Your task to perform on an android device: allow notifications from all sites in the chrome app Image 0: 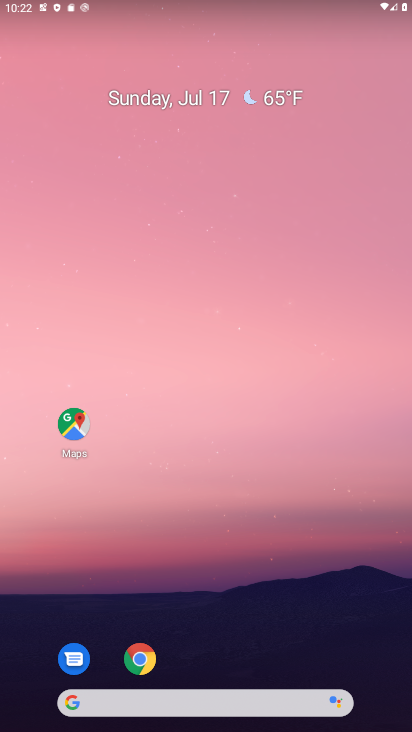
Step 0: click (147, 654)
Your task to perform on an android device: allow notifications from all sites in the chrome app Image 1: 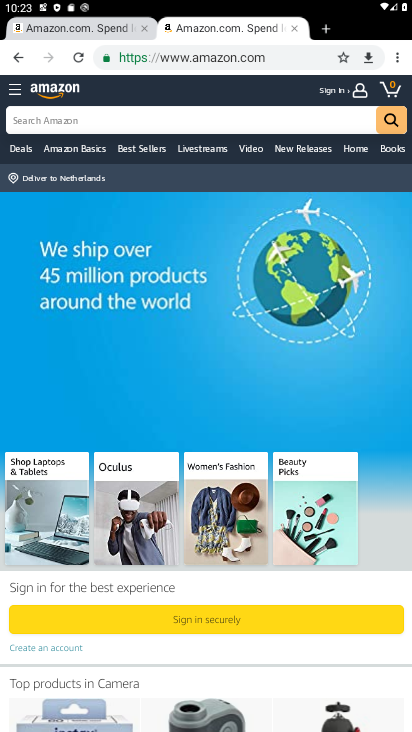
Step 1: drag from (391, 61) to (302, 413)
Your task to perform on an android device: allow notifications from all sites in the chrome app Image 2: 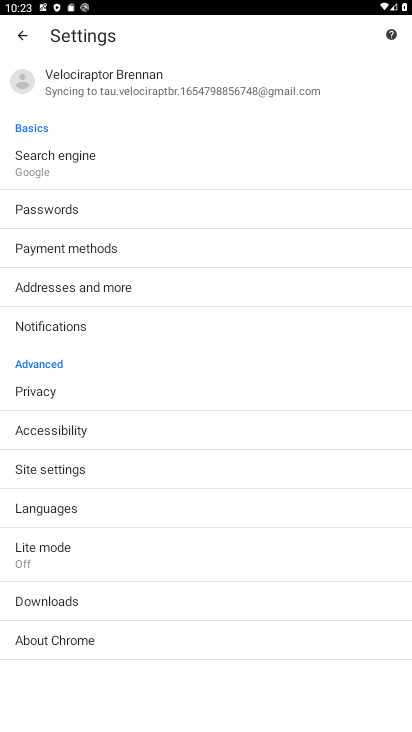
Step 2: click (59, 477)
Your task to perform on an android device: allow notifications from all sites in the chrome app Image 3: 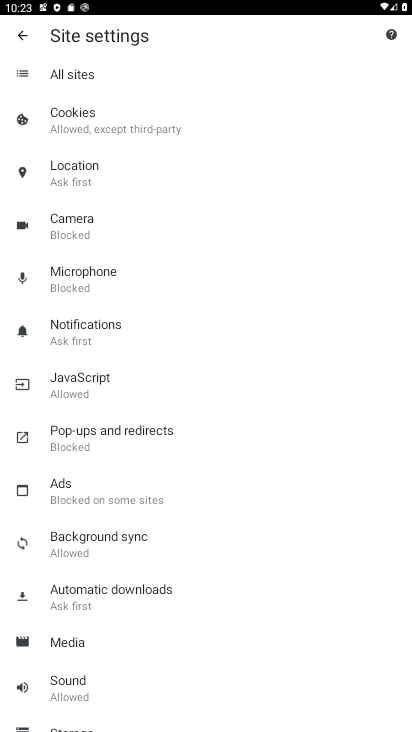
Step 3: click (112, 325)
Your task to perform on an android device: allow notifications from all sites in the chrome app Image 4: 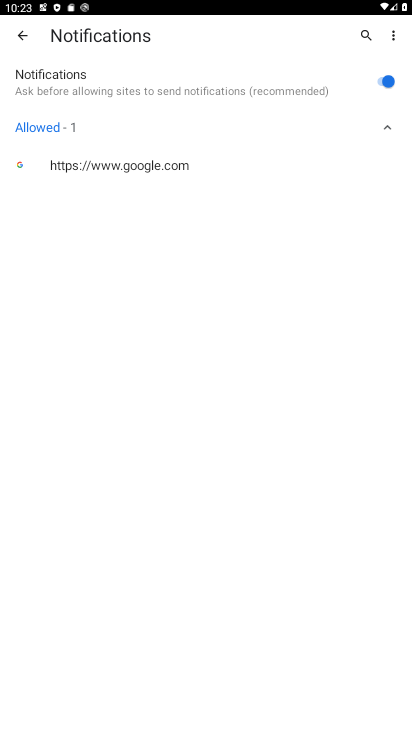
Step 4: task complete